Your task to perform on an android device: turn off javascript in the chrome app Image 0: 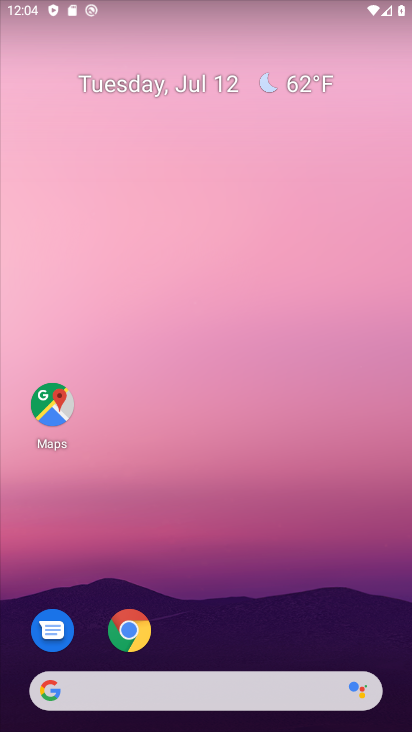
Step 0: click (127, 633)
Your task to perform on an android device: turn off javascript in the chrome app Image 1: 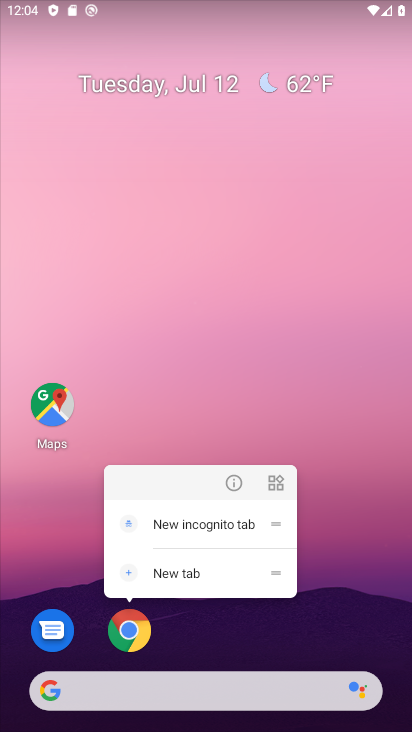
Step 1: click (132, 631)
Your task to perform on an android device: turn off javascript in the chrome app Image 2: 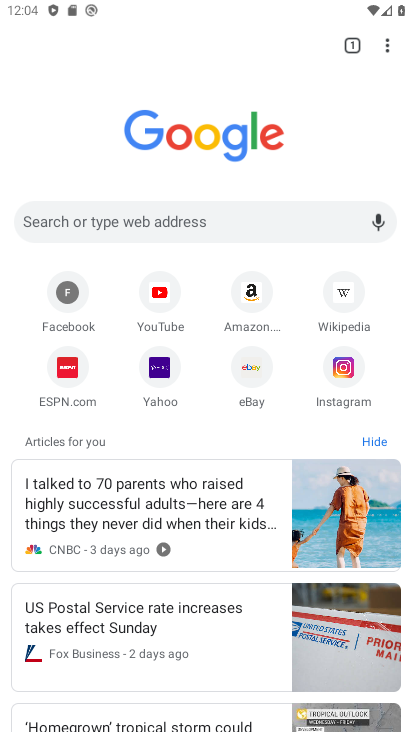
Step 2: click (382, 50)
Your task to perform on an android device: turn off javascript in the chrome app Image 3: 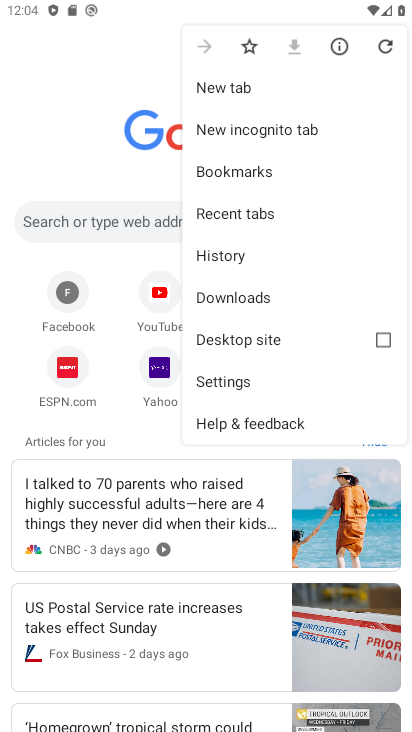
Step 3: click (222, 385)
Your task to perform on an android device: turn off javascript in the chrome app Image 4: 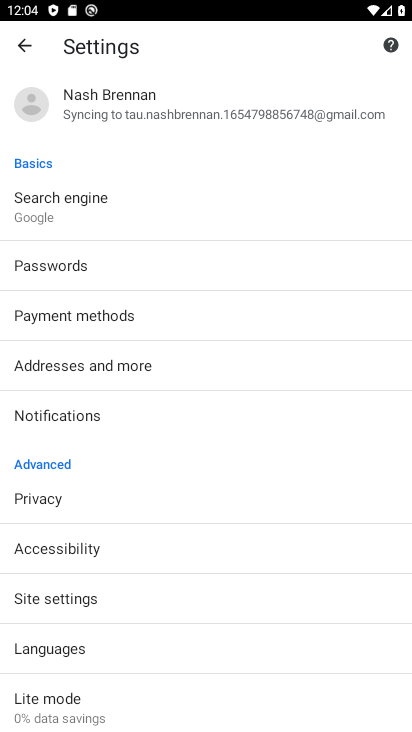
Step 4: click (78, 595)
Your task to perform on an android device: turn off javascript in the chrome app Image 5: 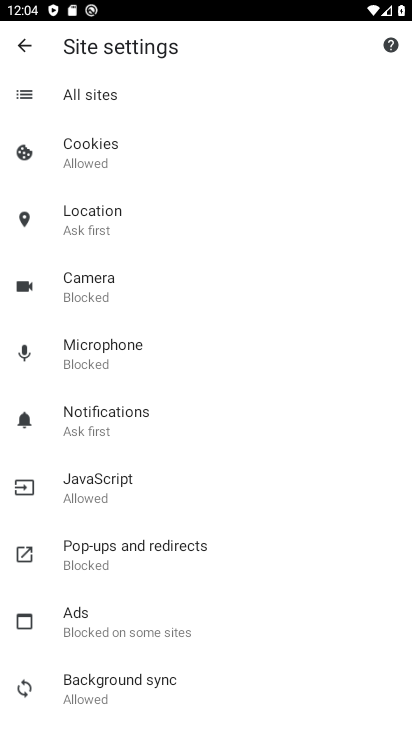
Step 5: click (141, 497)
Your task to perform on an android device: turn off javascript in the chrome app Image 6: 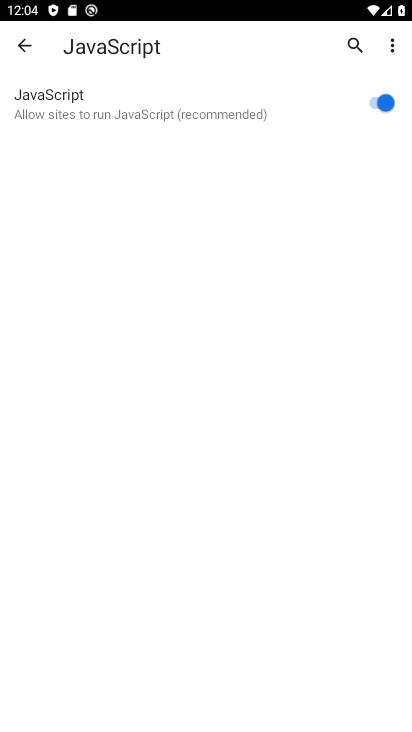
Step 6: click (378, 103)
Your task to perform on an android device: turn off javascript in the chrome app Image 7: 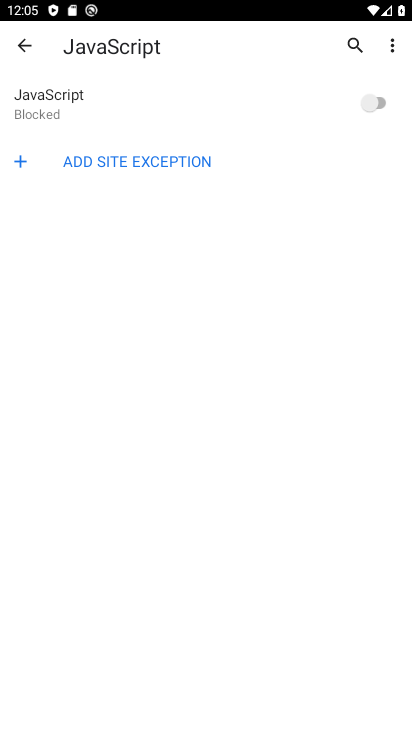
Step 7: task complete